Your task to perform on an android device: check data usage Image 0: 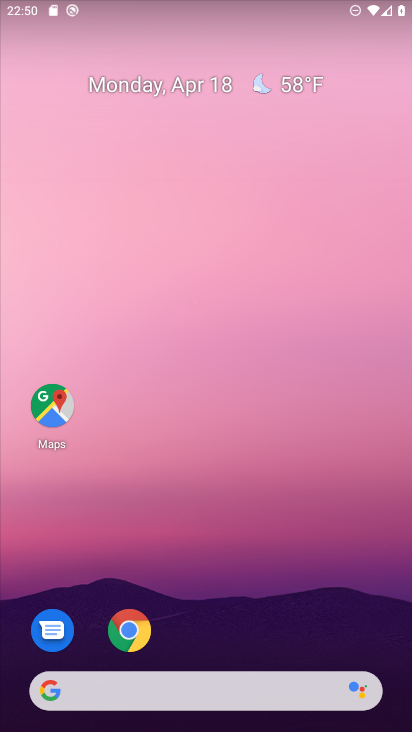
Step 0: drag from (216, 657) to (353, 397)
Your task to perform on an android device: check data usage Image 1: 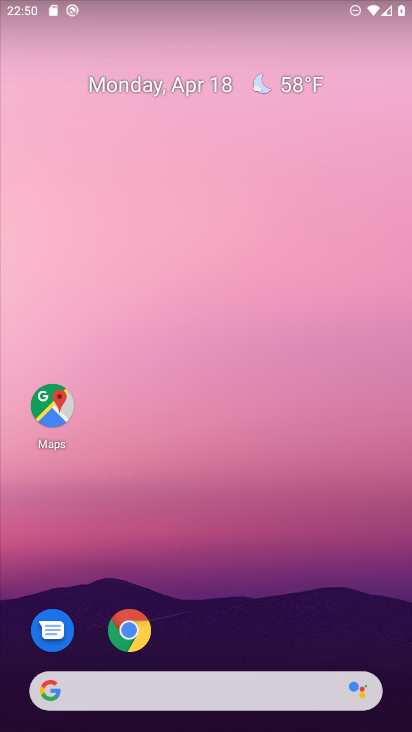
Step 1: drag from (222, 669) to (171, 7)
Your task to perform on an android device: check data usage Image 2: 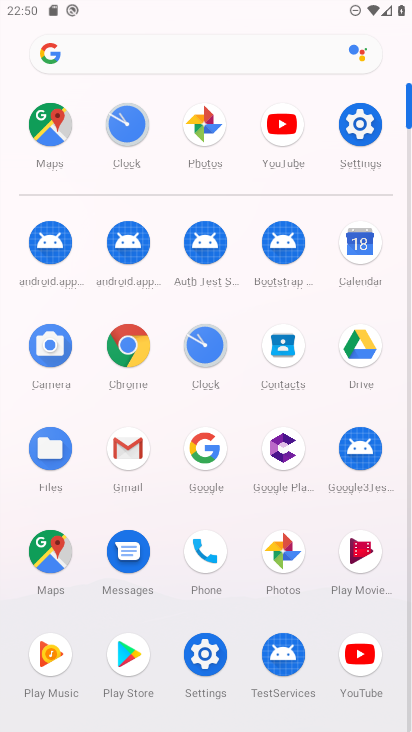
Step 2: click (347, 121)
Your task to perform on an android device: check data usage Image 3: 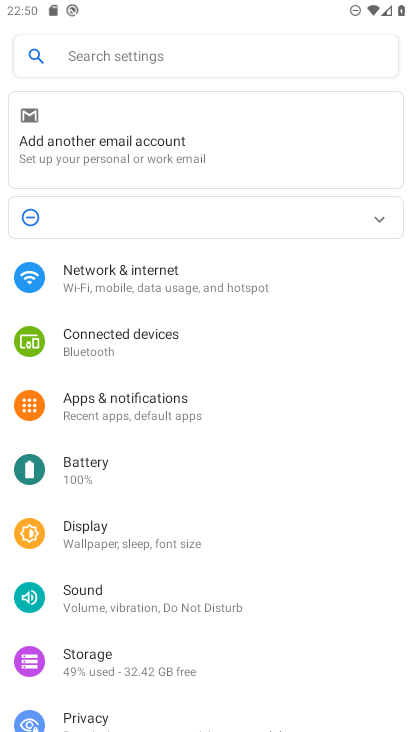
Step 3: click (127, 266)
Your task to perform on an android device: check data usage Image 4: 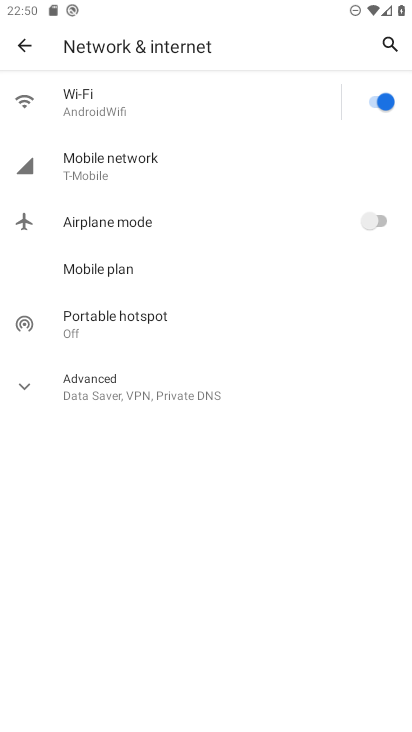
Step 4: click (140, 151)
Your task to perform on an android device: check data usage Image 5: 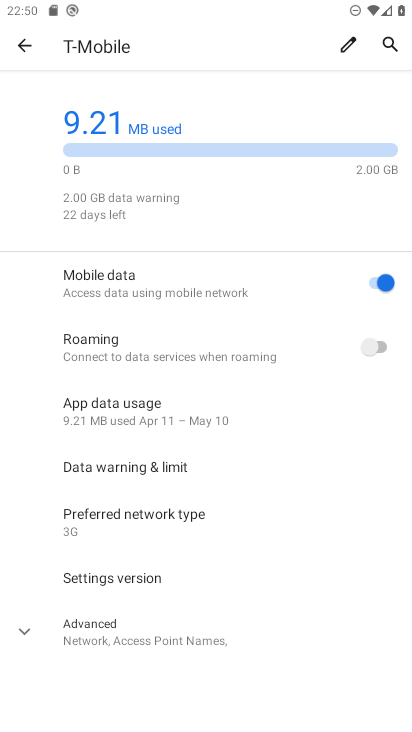
Step 5: task complete